Your task to perform on an android device: turn off improve location accuracy Image 0: 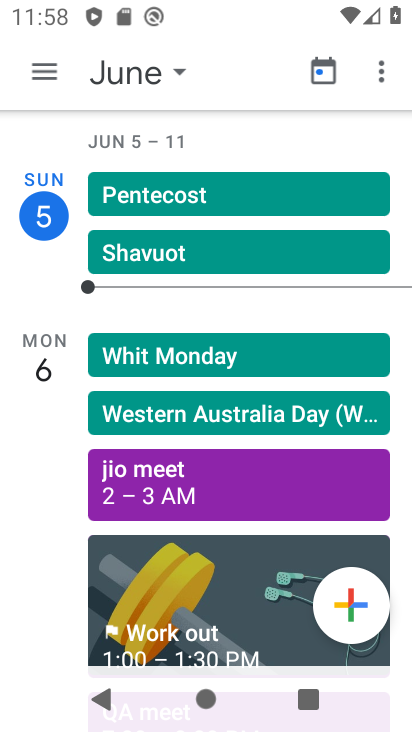
Step 0: press home button
Your task to perform on an android device: turn off improve location accuracy Image 1: 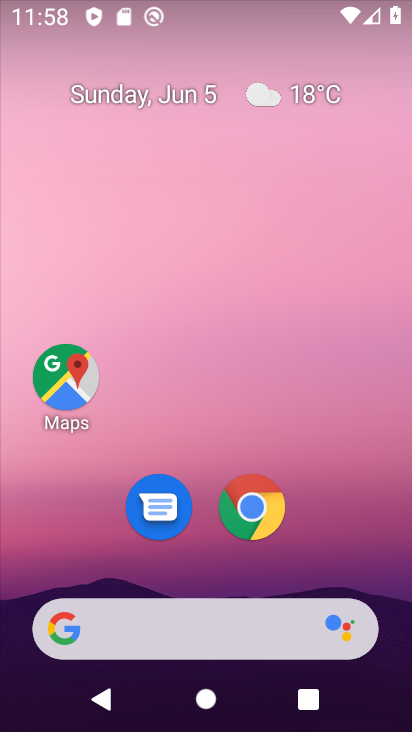
Step 1: drag from (256, 572) to (368, 12)
Your task to perform on an android device: turn off improve location accuracy Image 2: 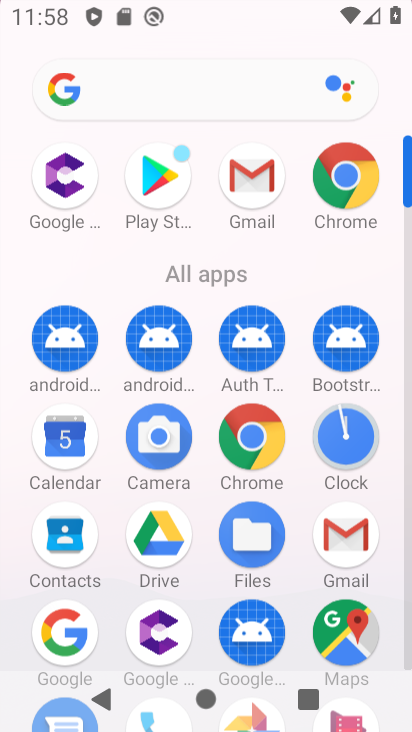
Step 2: click (251, 15)
Your task to perform on an android device: turn off improve location accuracy Image 3: 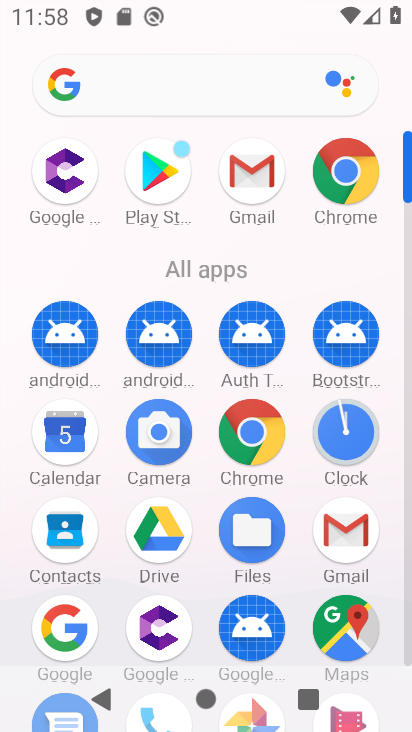
Step 3: click (232, 13)
Your task to perform on an android device: turn off improve location accuracy Image 4: 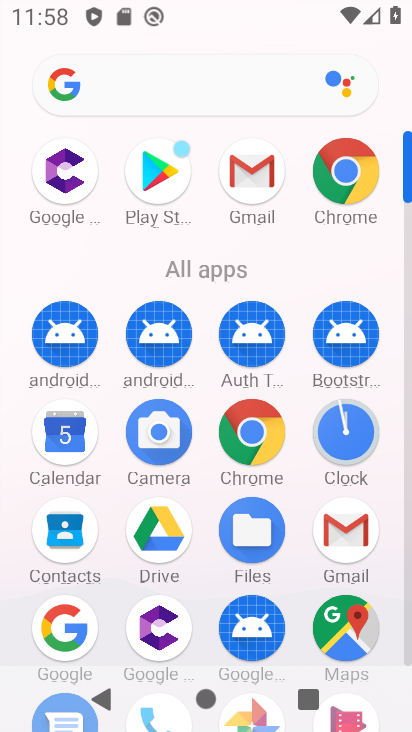
Step 4: drag from (200, 579) to (207, 305)
Your task to perform on an android device: turn off improve location accuracy Image 5: 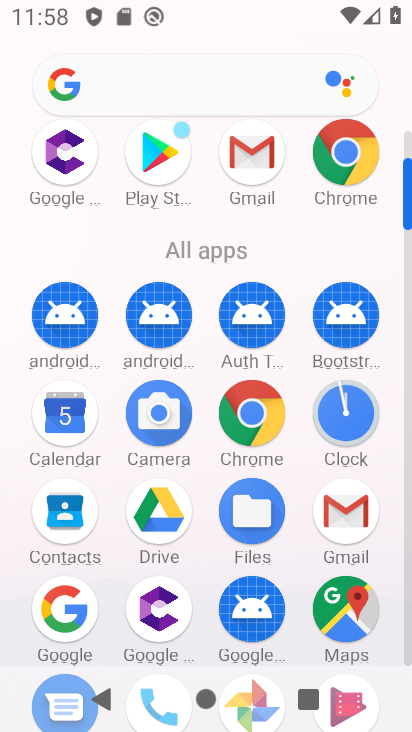
Step 5: drag from (200, 620) to (203, 175)
Your task to perform on an android device: turn off improve location accuracy Image 6: 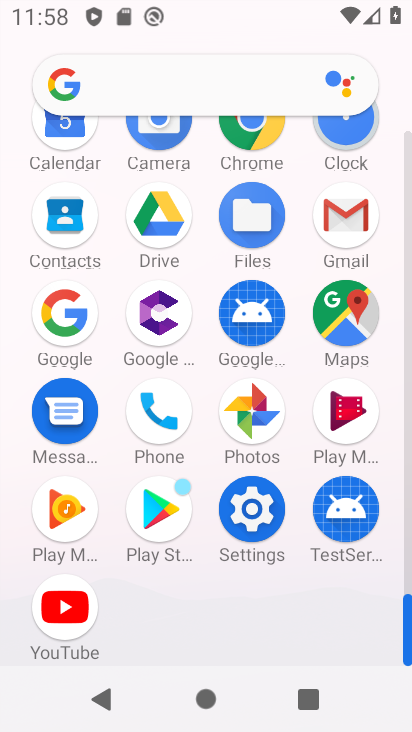
Step 6: click (248, 534)
Your task to perform on an android device: turn off improve location accuracy Image 7: 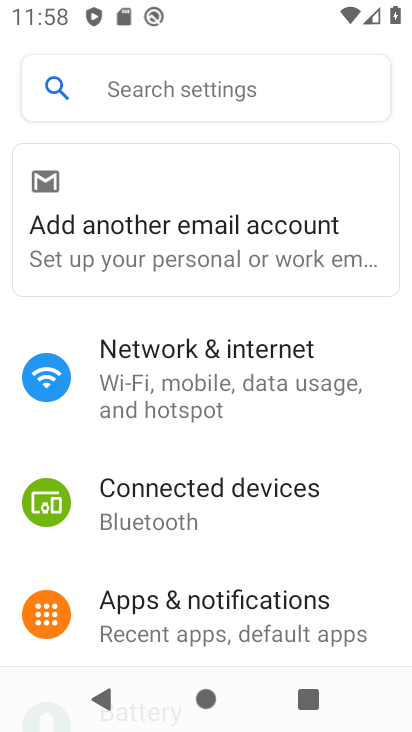
Step 7: drag from (230, 609) to (238, 173)
Your task to perform on an android device: turn off improve location accuracy Image 8: 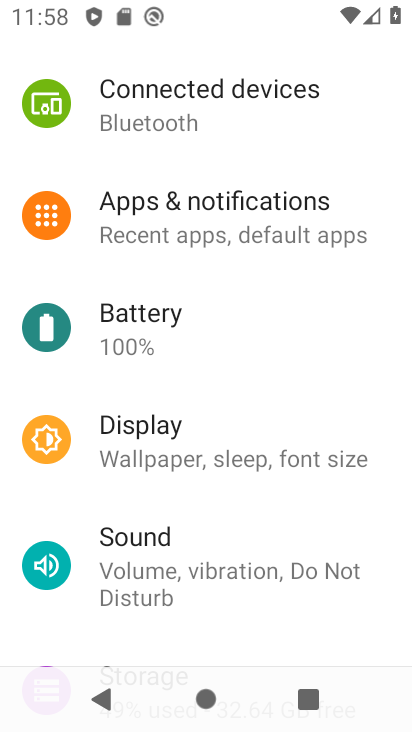
Step 8: drag from (244, 503) to (279, 84)
Your task to perform on an android device: turn off improve location accuracy Image 9: 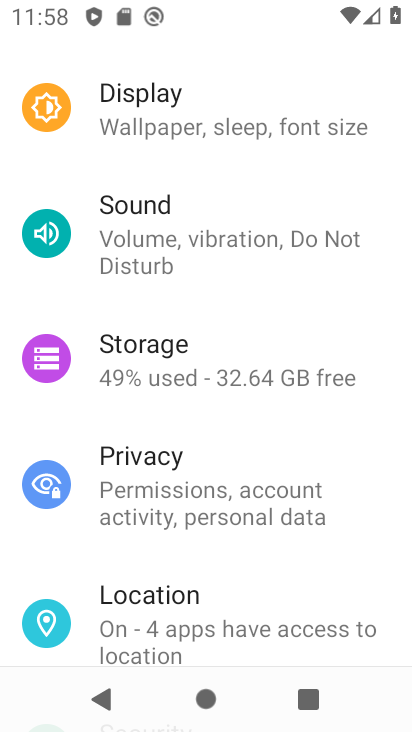
Step 9: drag from (229, 616) to (253, 404)
Your task to perform on an android device: turn off improve location accuracy Image 10: 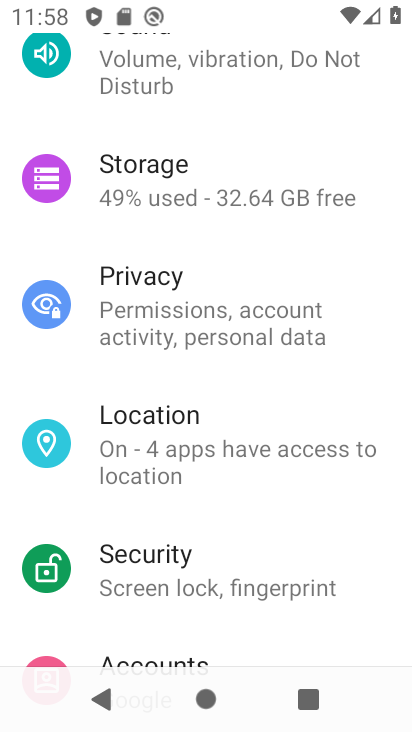
Step 10: click (188, 450)
Your task to perform on an android device: turn off improve location accuracy Image 11: 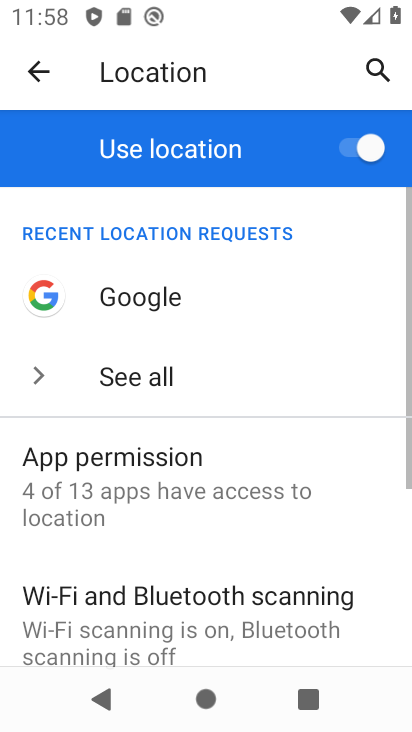
Step 11: drag from (173, 582) to (215, 336)
Your task to perform on an android device: turn off improve location accuracy Image 12: 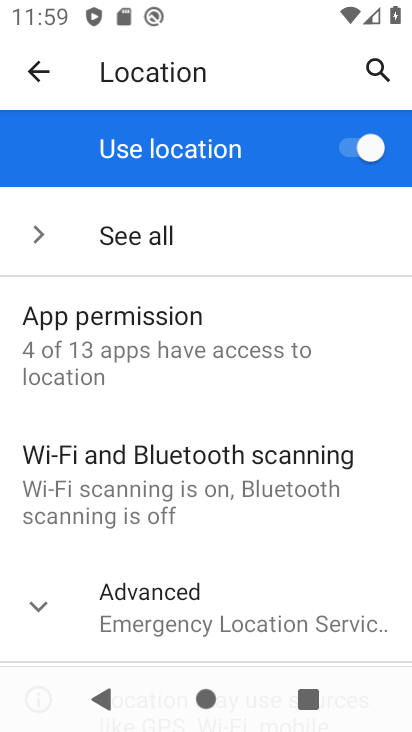
Step 12: click (163, 623)
Your task to perform on an android device: turn off improve location accuracy Image 13: 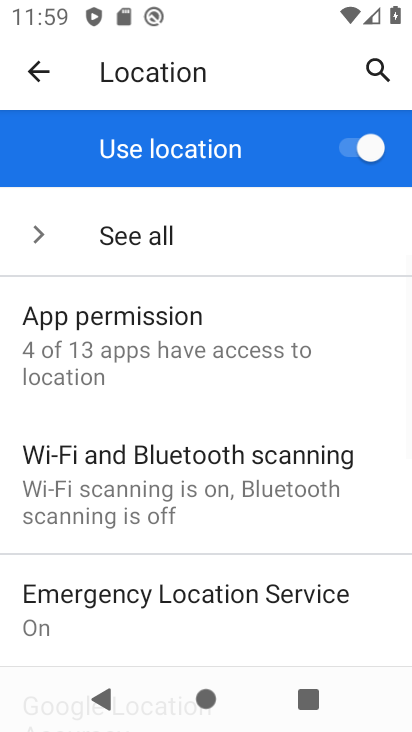
Step 13: drag from (211, 564) to (234, 257)
Your task to perform on an android device: turn off improve location accuracy Image 14: 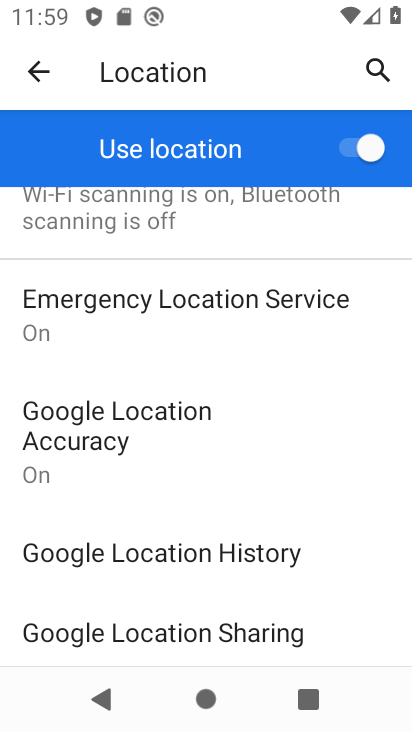
Step 14: click (169, 432)
Your task to perform on an android device: turn off improve location accuracy Image 15: 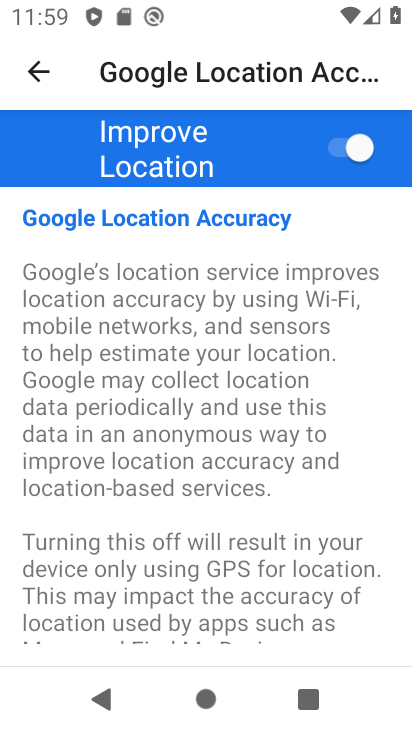
Step 15: click (333, 145)
Your task to perform on an android device: turn off improve location accuracy Image 16: 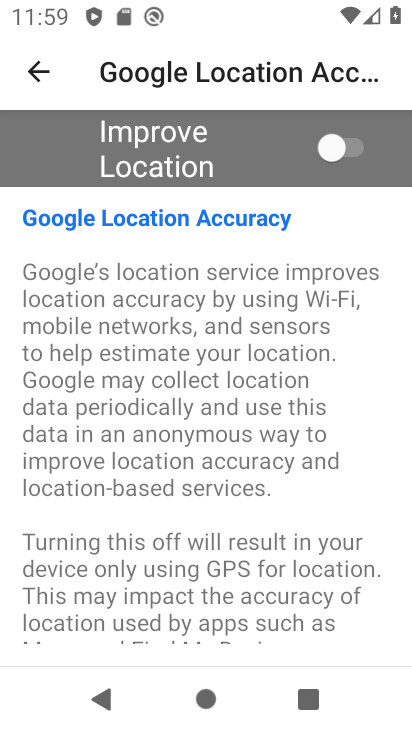
Step 16: task complete